Your task to perform on an android device: Open display settings Image 0: 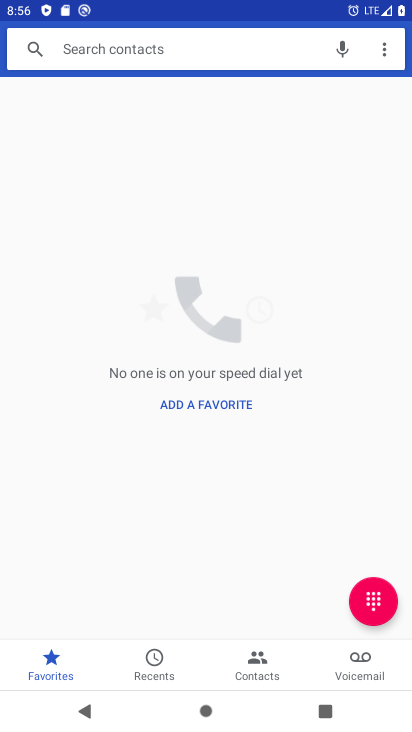
Step 0: press home button
Your task to perform on an android device: Open display settings Image 1: 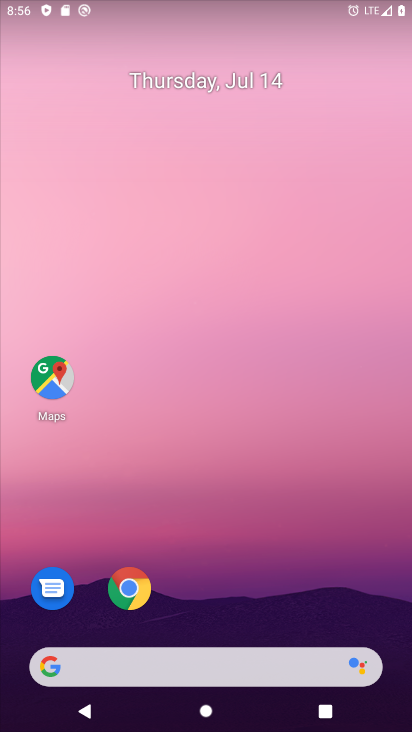
Step 1: drag from (290, 570) to (52, 11)
Your task to perform on an android device: Open display settings Image 2: 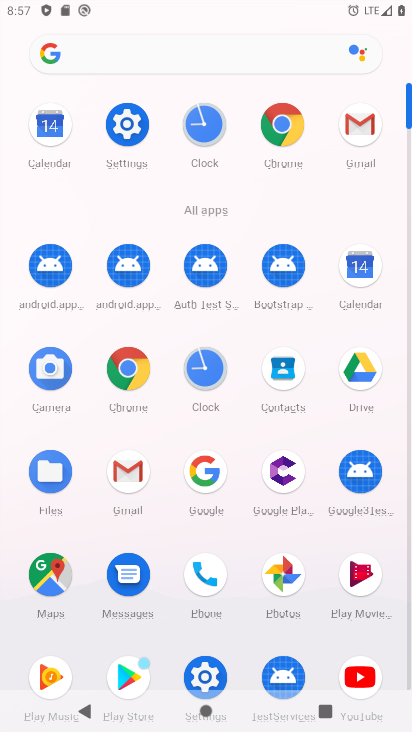
Step 2: click (128, 126)
Your task to perform on an android device: Open display settings Image 3: 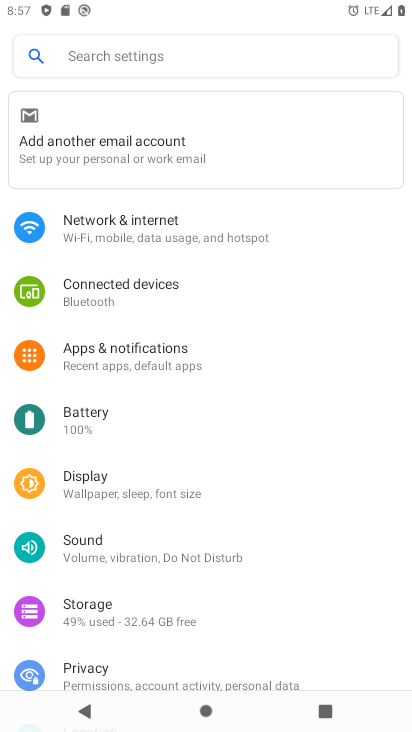
Step 3: click (112, 475)
Your task to perform on an android device: Open display settings Image 4: 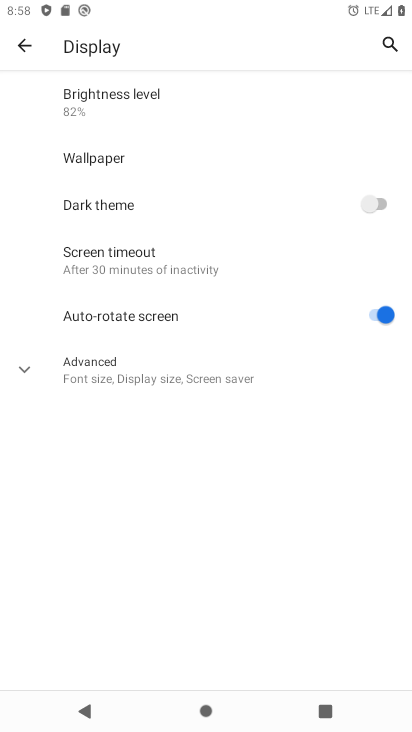
Step 4: task complete